Your task to perform on an android device: change alarm snooze length Image 0: 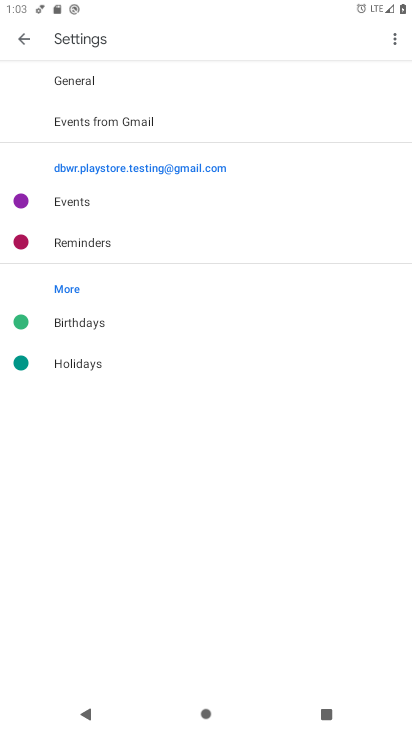
Step 0: press home button
Your task to perform on an android device: change alarm snooze length Image 1: 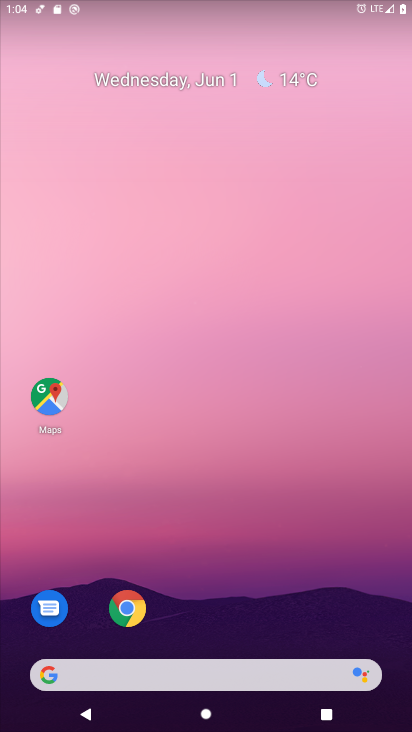
Step 1: drag from (261, 627) to (293, 193)
Your task to perform on an android device: change alarm snooze length Image 2: 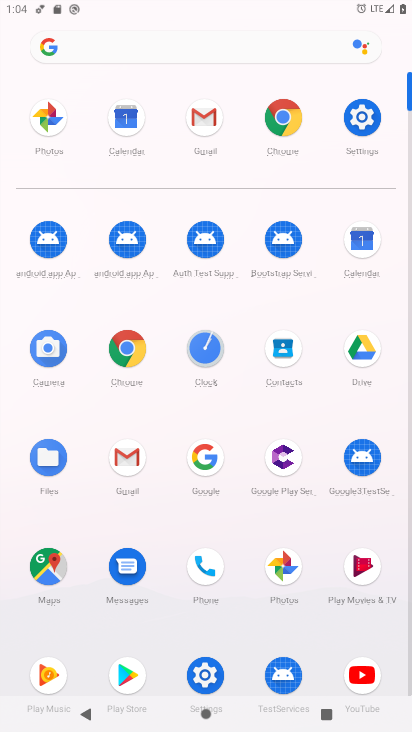
Step 2: click (211, 346)
Your task to perform on an android device: change alarm snooze length Image 3: 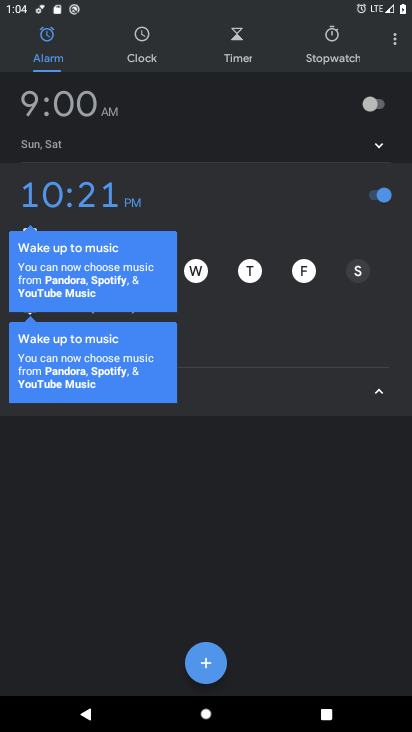
Step 3: click (389, 43)
Your task to perform on an android device: change alarm snooze length Image 4: 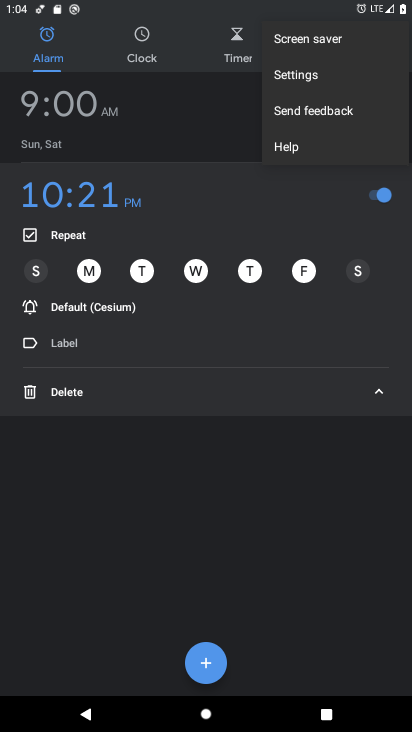
Step 4: click (326, 79)
Your task to perform on an android device: change alarm snooze length Image 5: 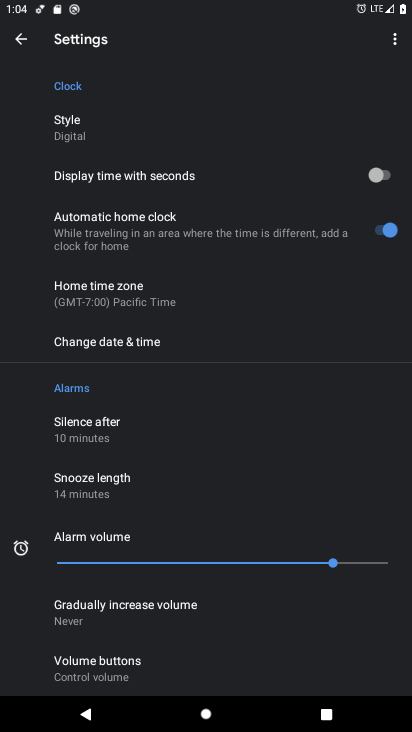
Step 5: click (122, 487)
Your task to perform on an android device: change alarm snooze length Image 6: 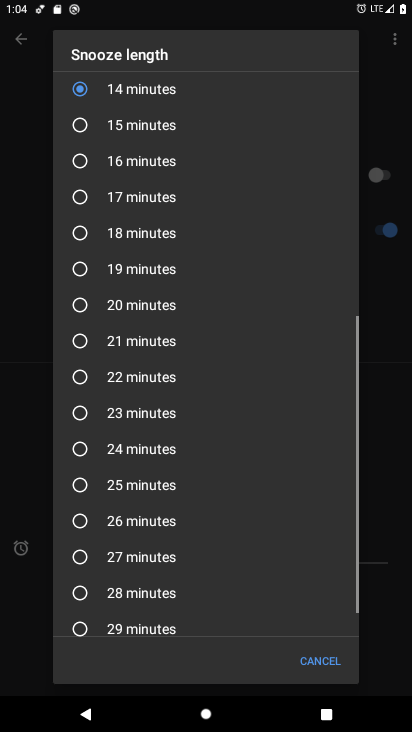
Step 6: click (128, 492)
Your task to perform on an android device: change alarm snooze length Image 7: 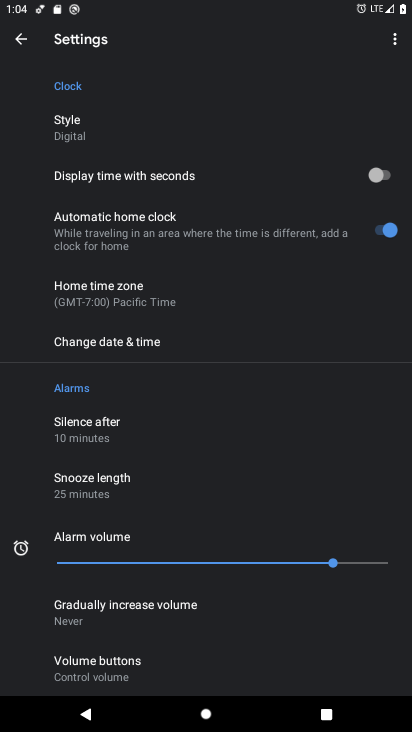
Step 7: task complete